Your task to perform on an android device: see sites visited before in the chrome app Image 0: 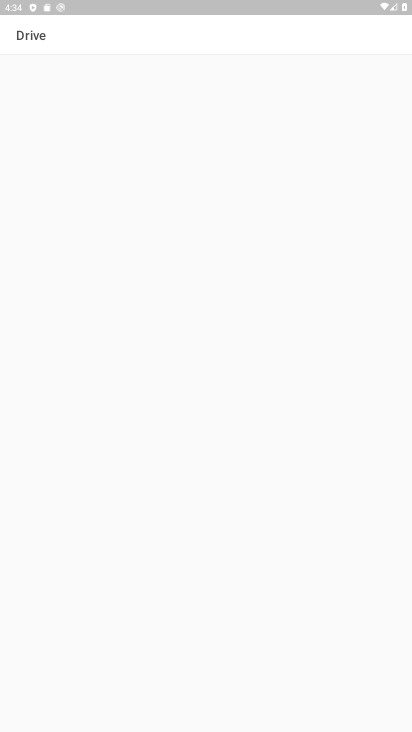
Step 0: click (177, 294)
Your task to perform on an android device: see sites visited before in the chrome app Image 1: 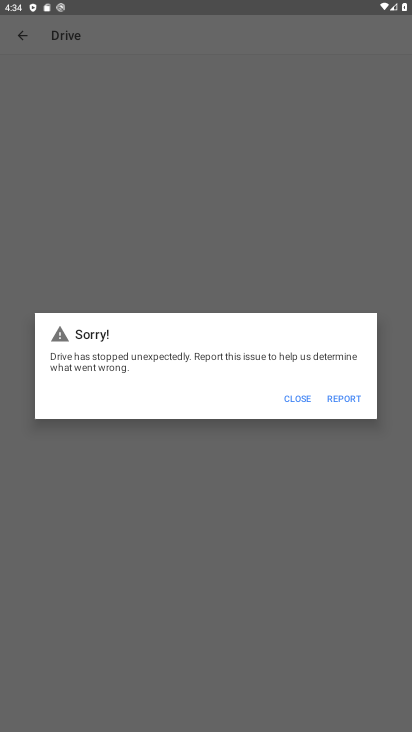
Step 1: press home button
Your task to perform on an android device: see sites visited before in the chrome app Image 2: 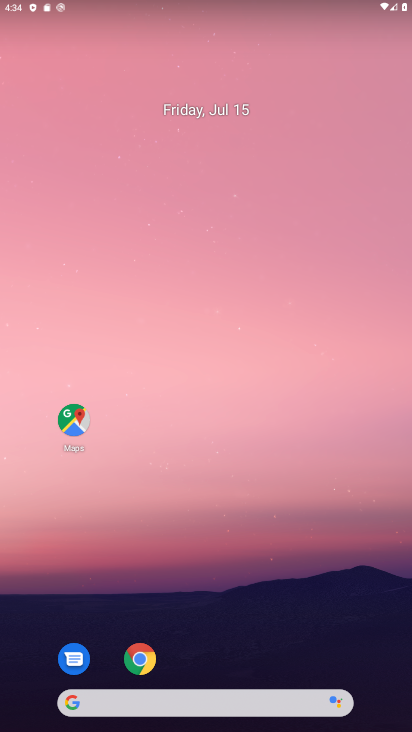
Step 2: drag from (246, 566) to (237, 113)
Your task to perform on an android device: see sites visited before in the chrome app Image 3: 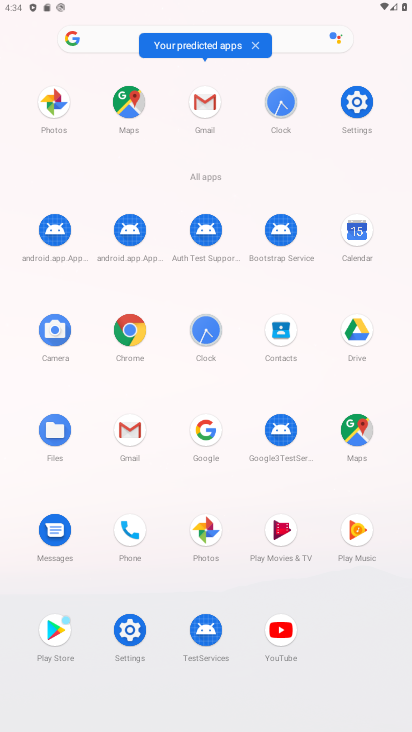
Step 3: click (121, 335)
Your task to perform on an android device: see sites visited before in the chrome app Image 4: 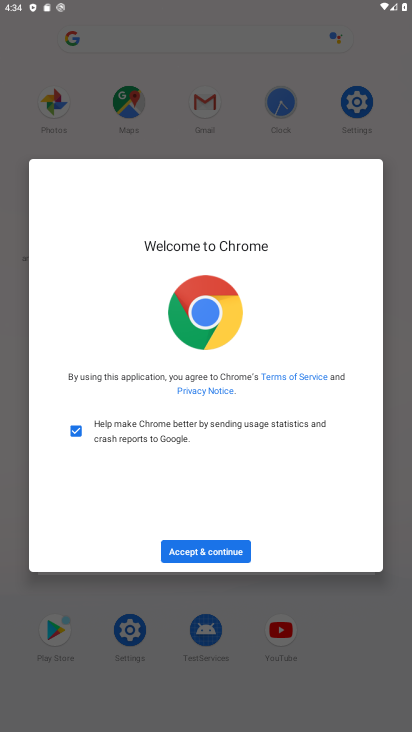
Step 4: click (185, 546)
Your task to perform on an android device: see sites visited before in the chrome app Image 5: 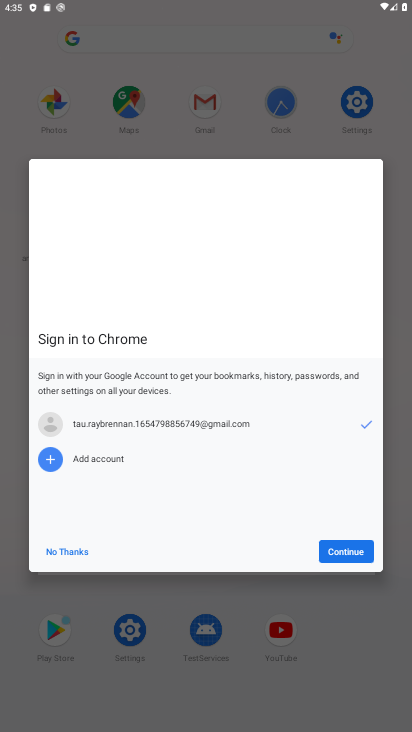
Step 5: click (59, 541)
Your task to perform on an android device: see sites visited before in the chrome app Image 6: 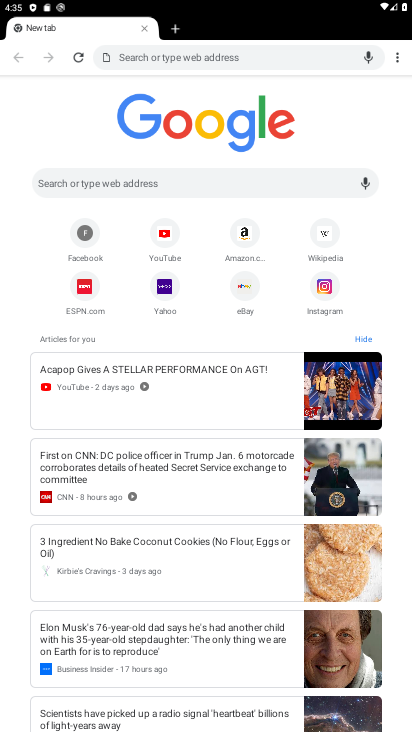
Step 6: drag from (403, 54) to (293, 144)
Your task to perform on an android device: see sites visited before in the chrome app Image 7: 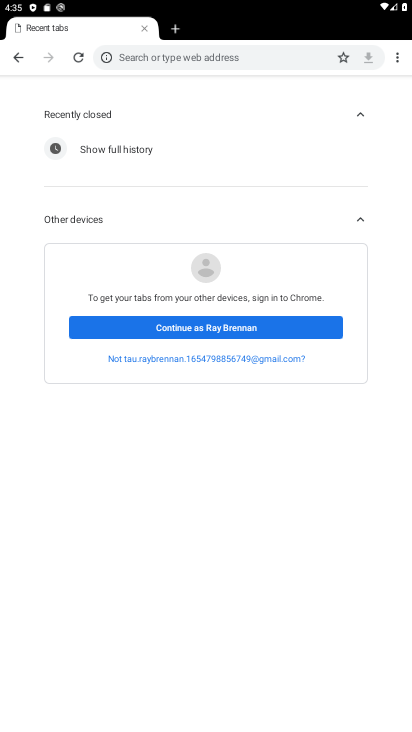
Step 7: click (208, 323)
Your task to perform on an android device: see sites visited before in the chrome app Image 8: 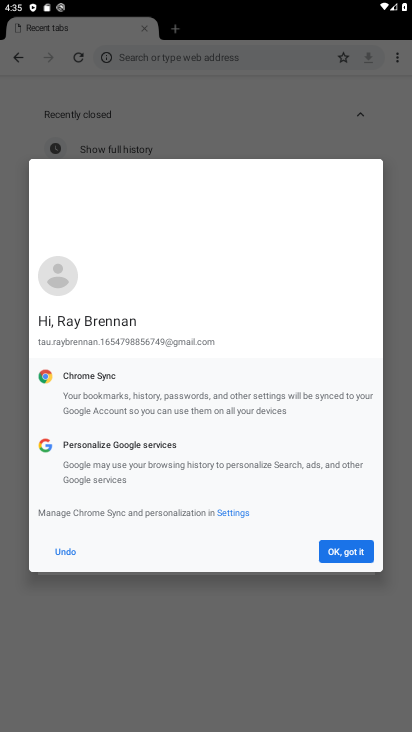
Step 8: click (353, 553)
Your task to perform on an android device: see sites visited before in the chrome app Image 9: 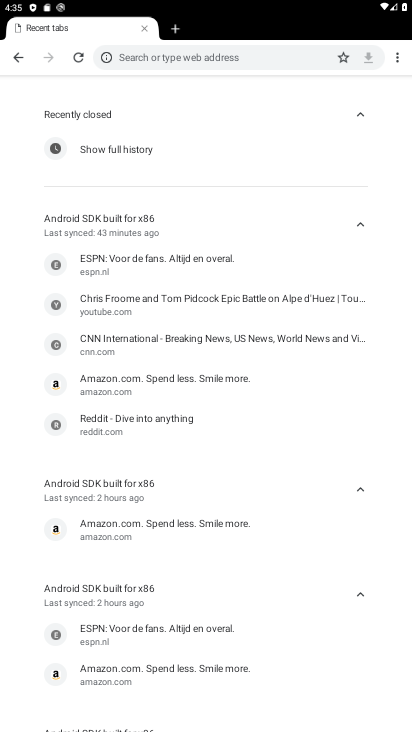
Step 9: task complete